Your task to perform on an android device: Go to display settings Image 0: 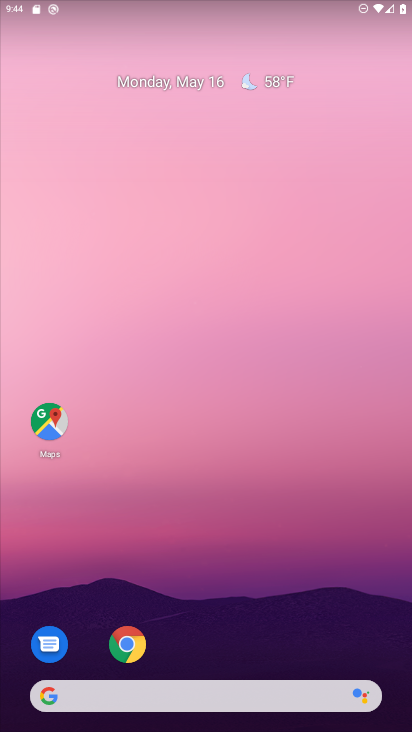
Step 0: drag from (248, 650) to (286, 243)
Your task to perform on an android device: Go to display settings Image 1: 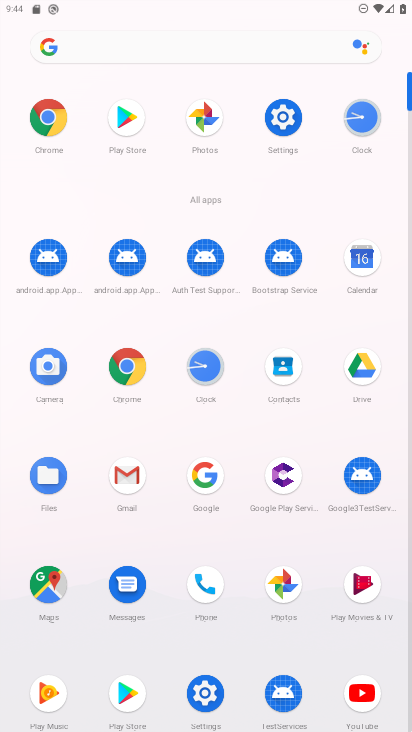
Step 1: click (282, 105)
Your task to perform on an android device: Go to display settings Image 2: 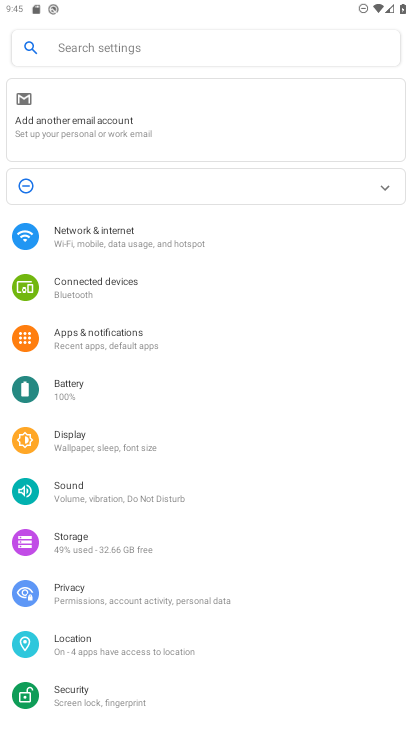
Step 2: click (79, 443)
Your task to perform on an android device: Go to display settings Image 3: 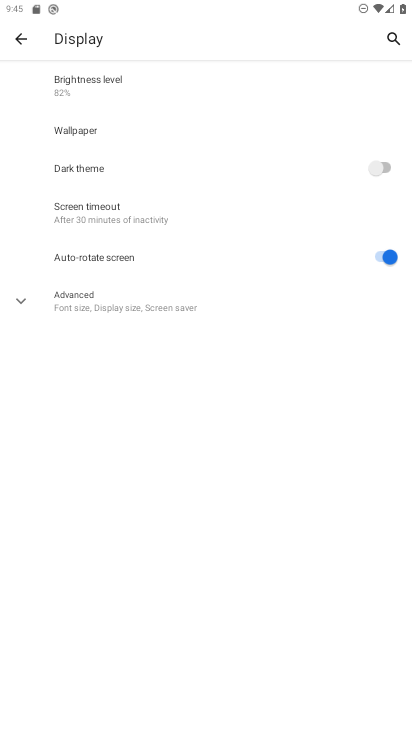
Step 3: task complete